Your task to perform on an android device: Go to Google maps Image 0: 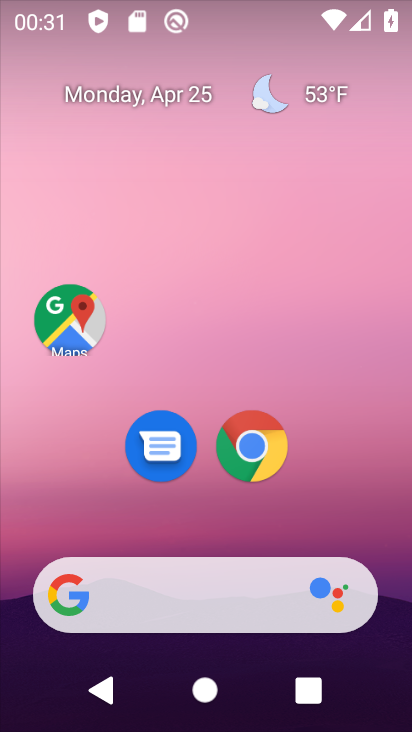
Step 0: click (68, 287)
Your task to perform on an android device: Go to Google maps Image 1: 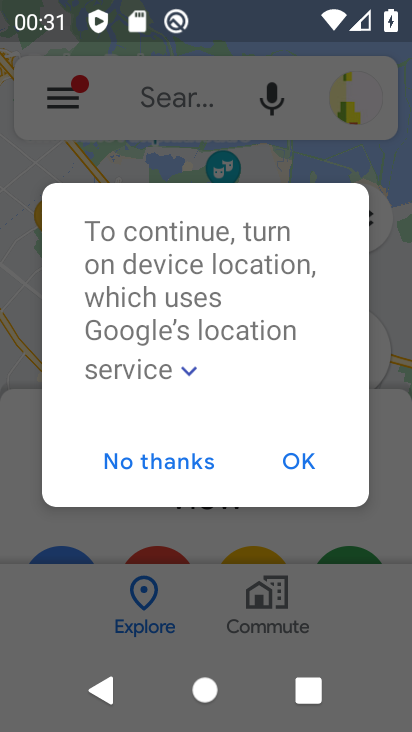
Step 1: click (178, 457)
Your task to perform on an android device: Go to Google maps Image 2: 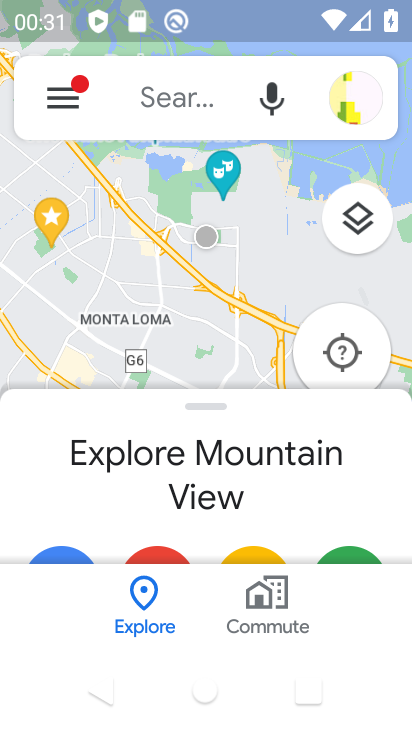
Step 2: task complete